Your task to perform on an android device: Open the Play Movies app and select the watchlist tab. Image 0: 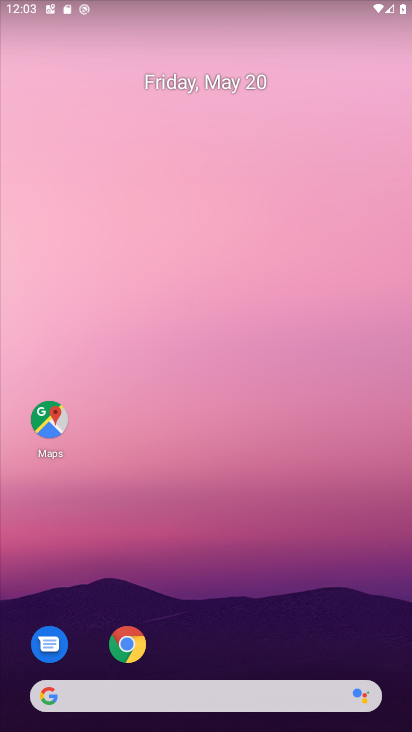
Step 0: click (304, 570)
Your task to perform on an android device: Open the Play Movies app and select the watchlist tab. Image 1: 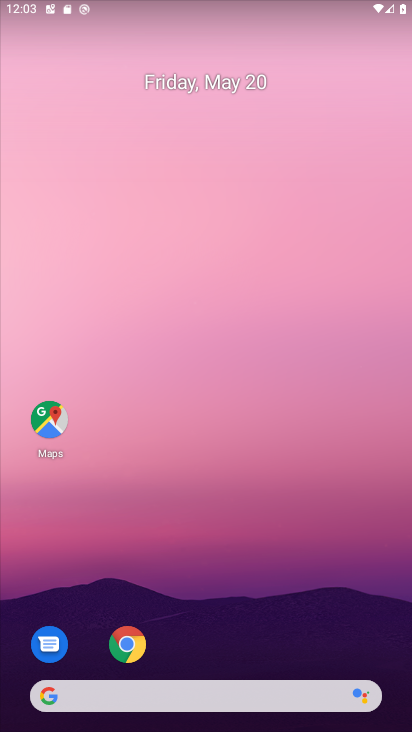
Step 1: click (269, 521)
Your task to perform on an android device: Open the Play Movies app and select the watchlist tab. Image 2: 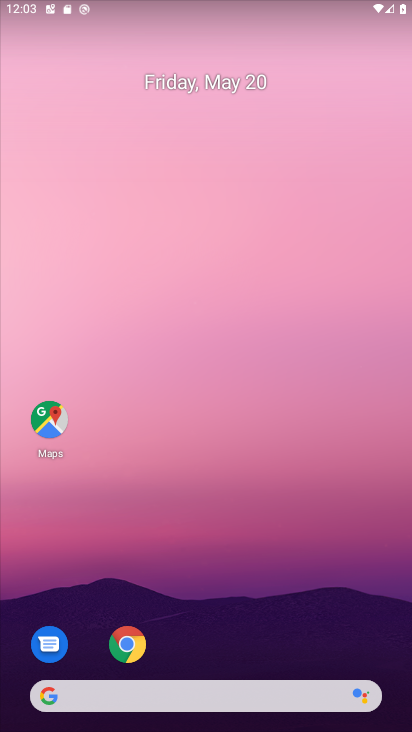
Step 2: click (196, 723)
Your task to perform on an android device: Open the Play Movies app and select the watchlist tab. Image 3: 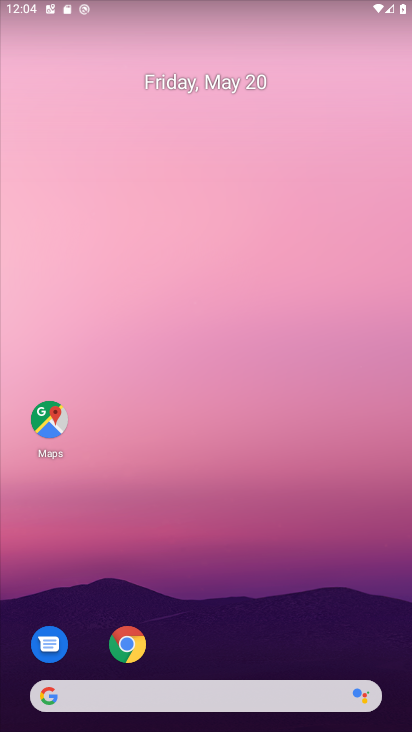
Step 3: drag from (224, 673) to (288, 237)
Your task to perform on an android device: Open the Play Movies app and select the watchlist tab. Image 4: 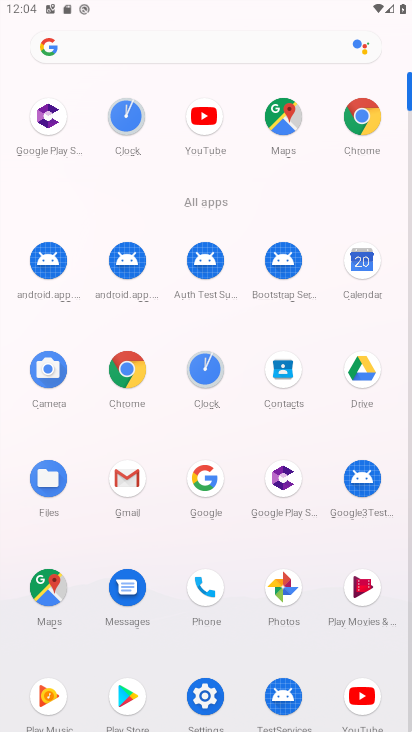
Step 4: click (358, 588)
Your task to perform on an android device: Open the Play Movies app and select the watchlist tab. Image 5: 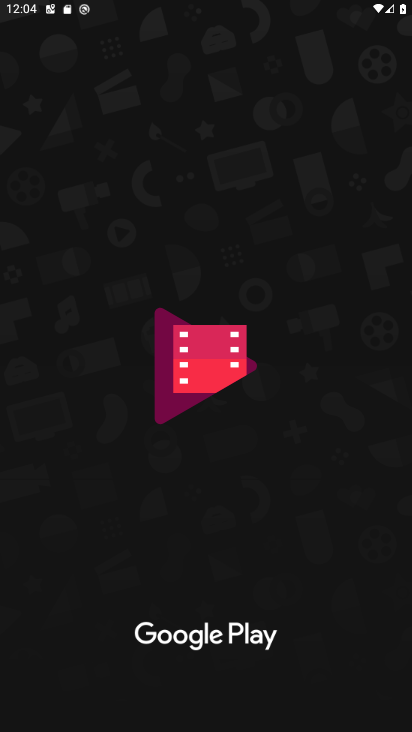
Step 5: drag from (303, 705) to (292, 433)
Your task to perform on an android device: Open the Play Movies app and select the watchlist tab. Image 6: 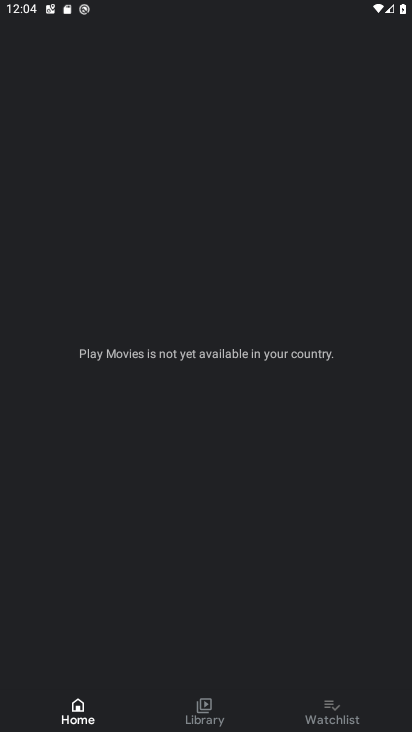
Step 6: click (332, 709)
Your task to perform on an android device: Open the Play Movies app and select the watchlist tab. Image 7: 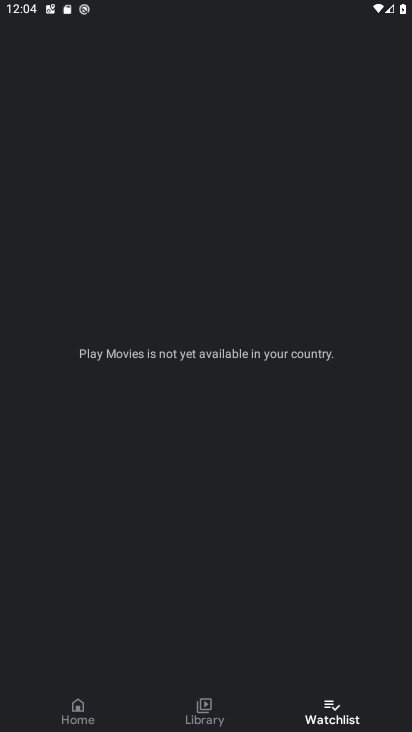
Step 7: task complete